Your task to perform on an android device: turn on the 24-hour format for clock Image 0: 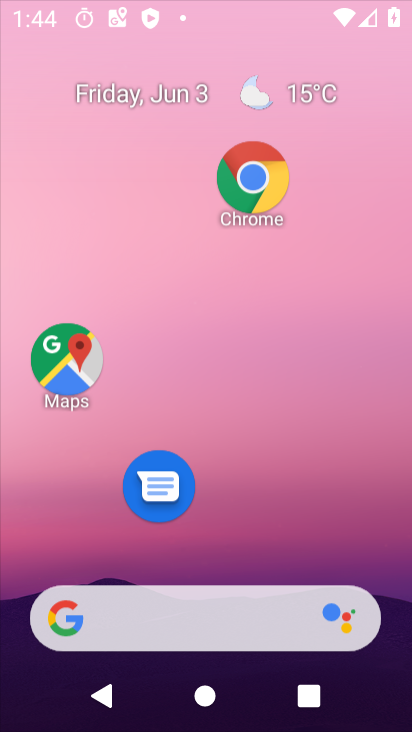
Step 0: press home button
Your task to perform on an android device: turn on the 24-hour format for clock Image 1: 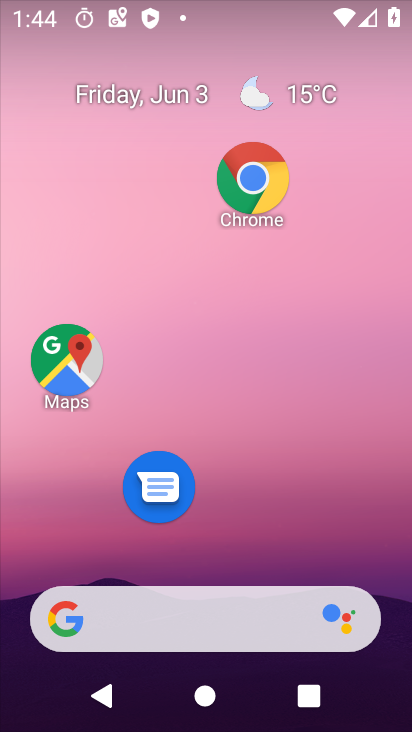
Step 1: drag from (214, 531) to (270, 41)
Your task to perform on an android device: turn on the 24-hour format for clock Image 2: 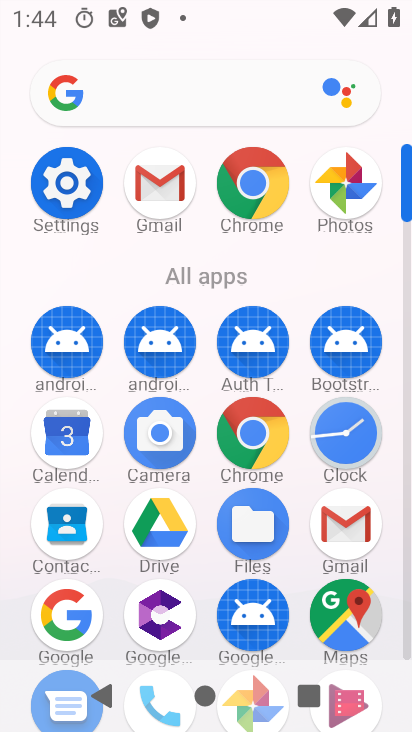
Step 2: click (338, 425)
Your task to perform on an android device: turn on the 24-hour format for clock Image 3: 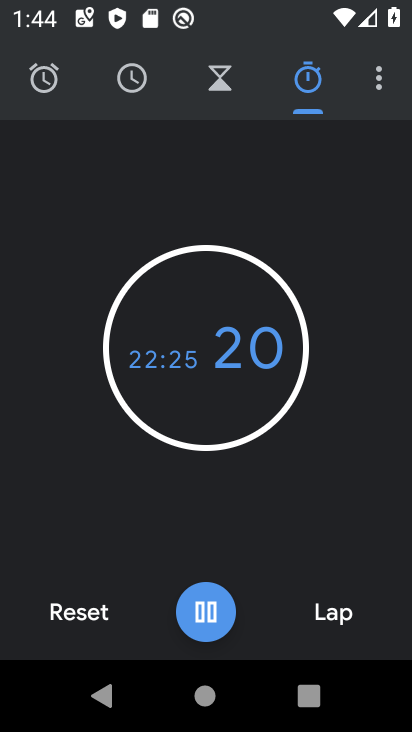
Step 3: click (76, 627)
Your task to perform on an android device: turn on the 24-hour format for clock Image 4: 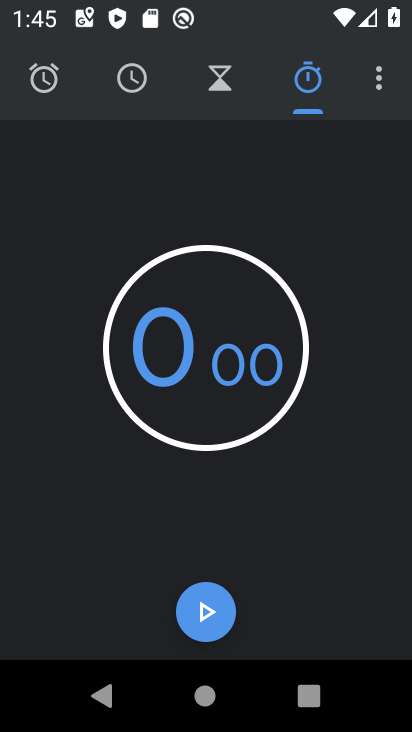
Step 4: click (370, 72)
Your task to perform on an android device: turn on the 24-hour format for clock Image 5: 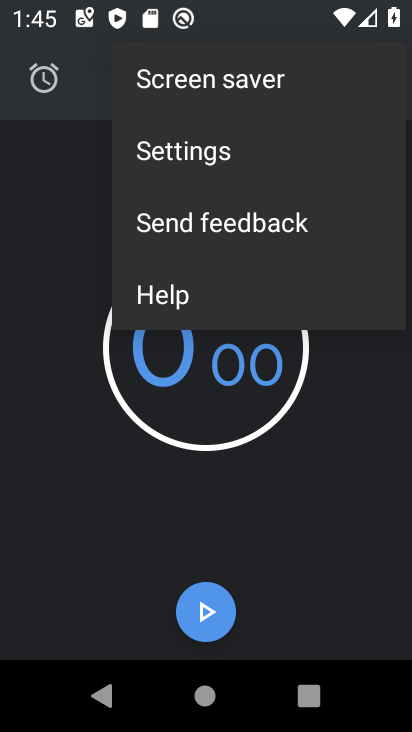
Step 5: click (226, 152)
Your task to perform on an android device: turn on the 24-hour format for clock Image 6: 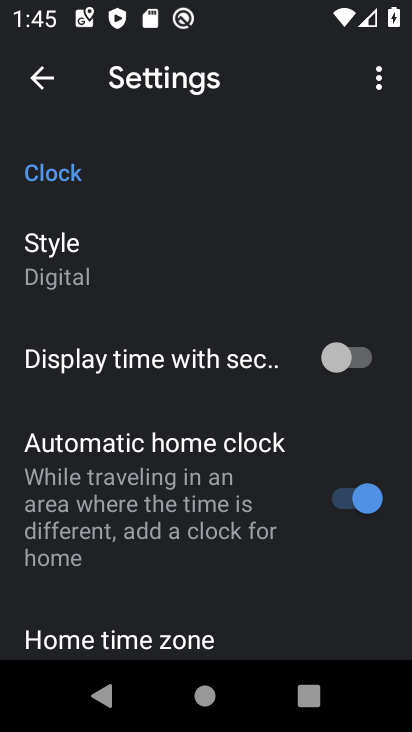
Step 6: drag from (208, 545) to (209, 242)
Your task to perform on an android device: turn on the 24-hour format for clock Image 7: 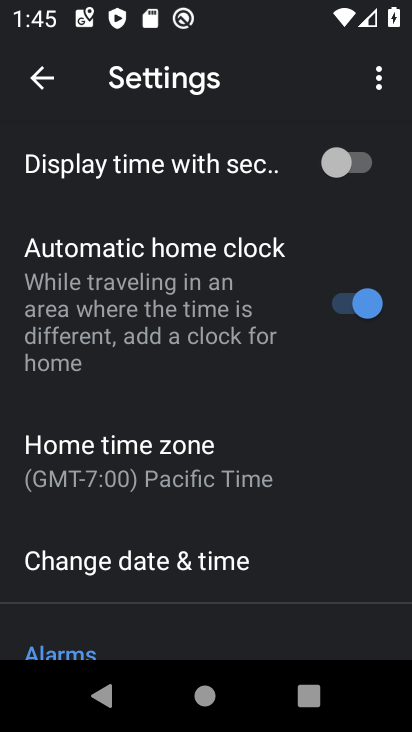
Step 7: click (271, 561)
Your task to perform on an android device: turn on the 24-hour format for clock Image 8: 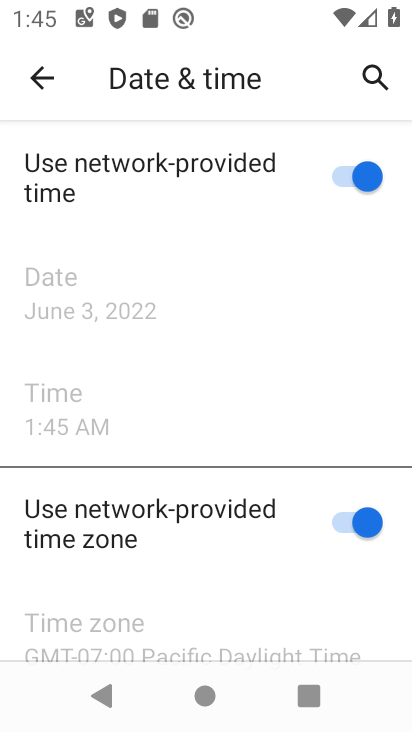
Step 8: task complete